Your task to perform on an android device: turn on translation in the chrome app Image 0: 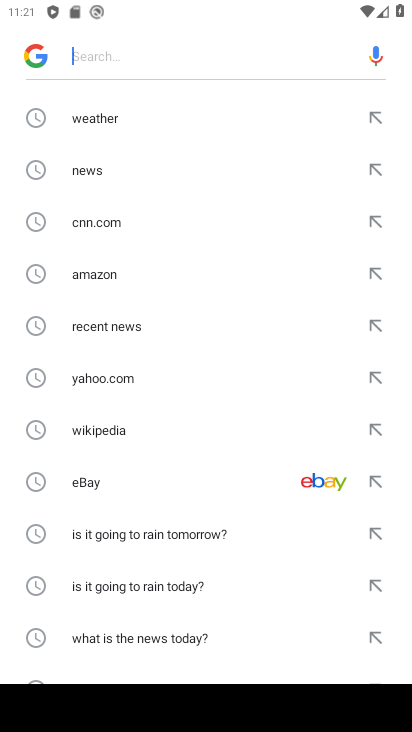
Step 0: press home button
Your task to perform on an android device: turn on translation in the chrome app Image 1: 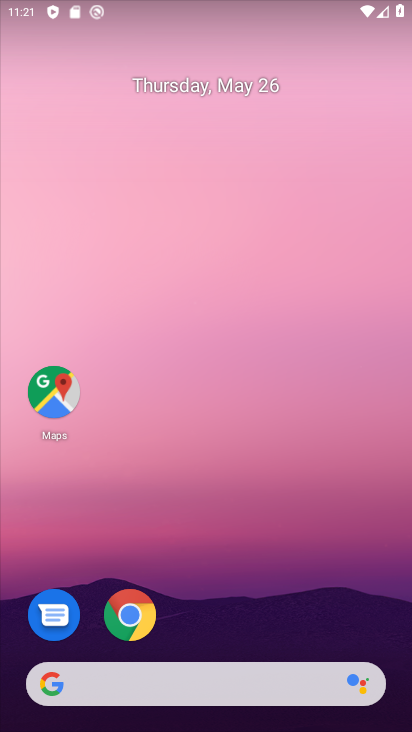
Step 1: click (138, 613)
Your task to perform on an android device: turn on translation in the chrome app Image 2: 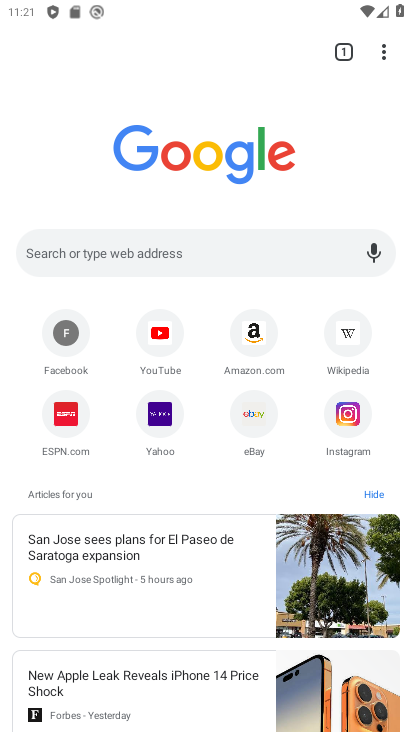
Step 2: click (384, 57)
Your task to perform on an android device: turn on translation in the chrome app Image 3: 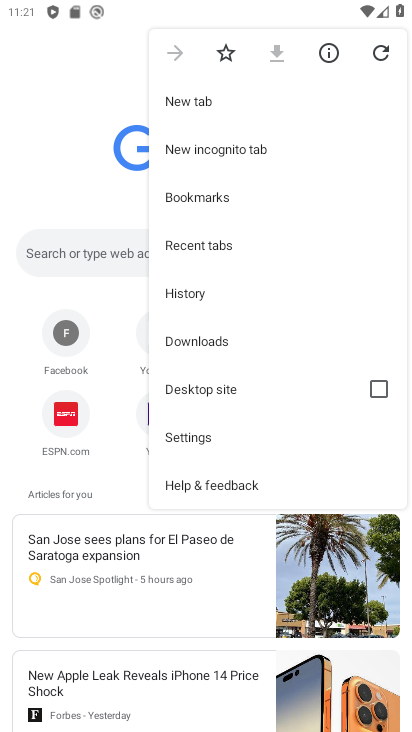
Step 3: click (232, 431)
Your task to perform on an android device: turn on translation in the chrome app Image 4: 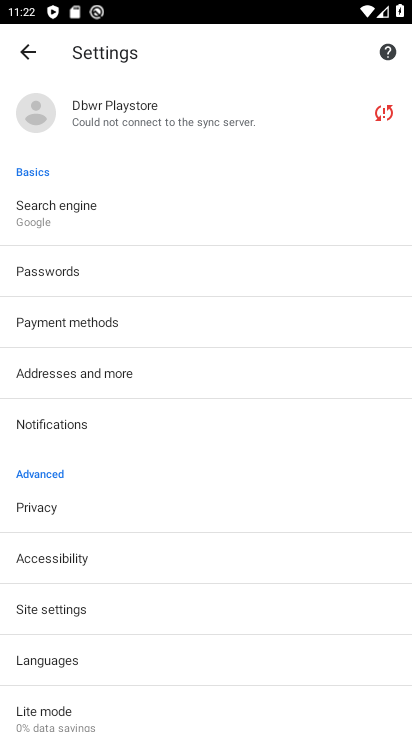
Step 4: click (154, 653)
Your task to perform on an android device: turn on translation in the chrome app Image 5: 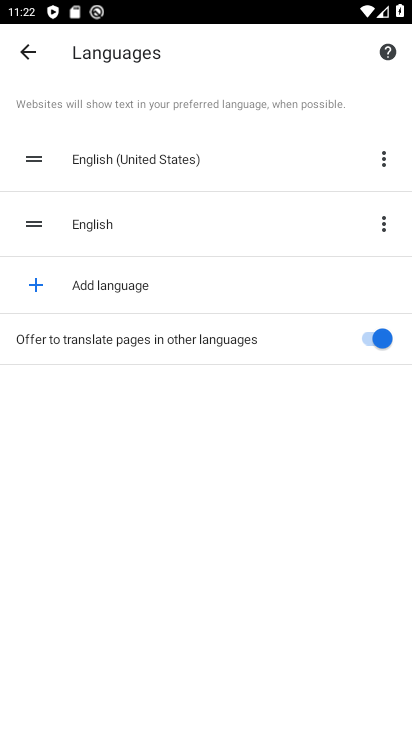
Step 5: task complete